Your task to perform on an android device: What's on my calendar today? Image 0: 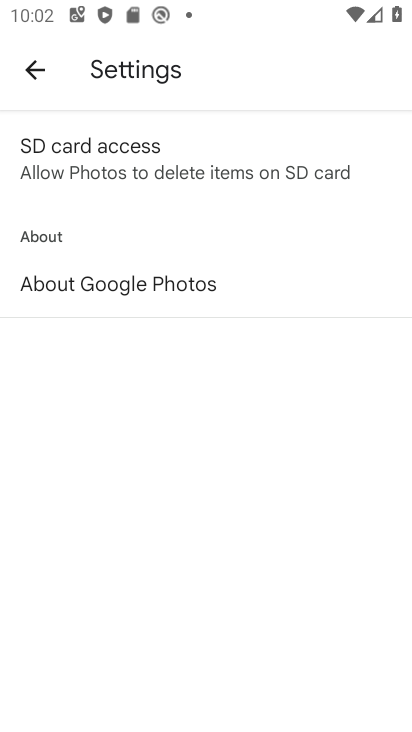
Step 0: press home button
Your task to perform on an android device: What's on my calendar today? Image 1: 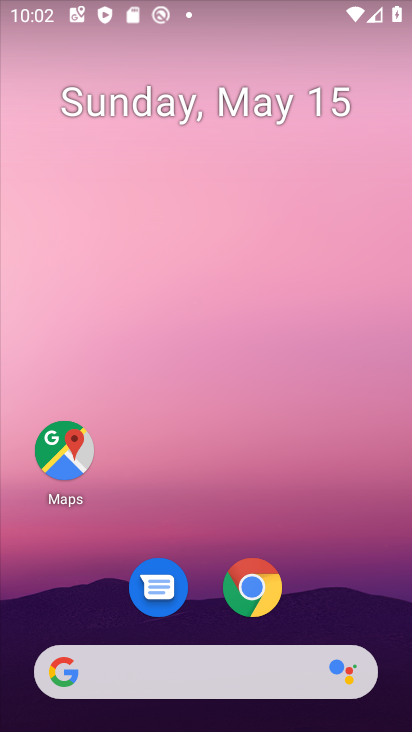
Step 1: drag from (394, 634) to (315, 187)
Your task to perform on an android device: What's on my calendar today? Image 2: 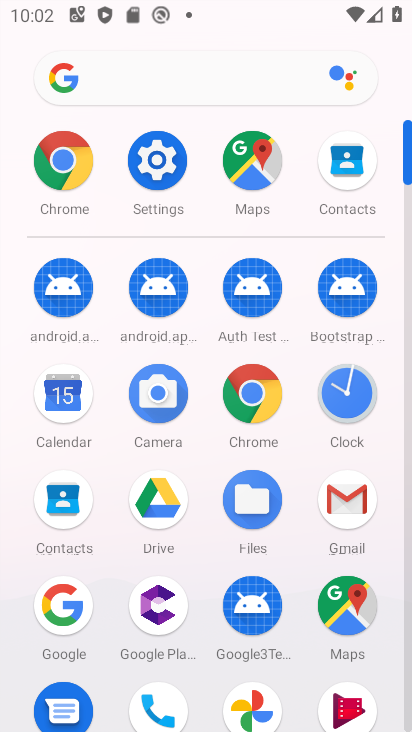
Step 2: click (62, 608)
Your task to perform on an android device: What's on my calendar today? Image 3: 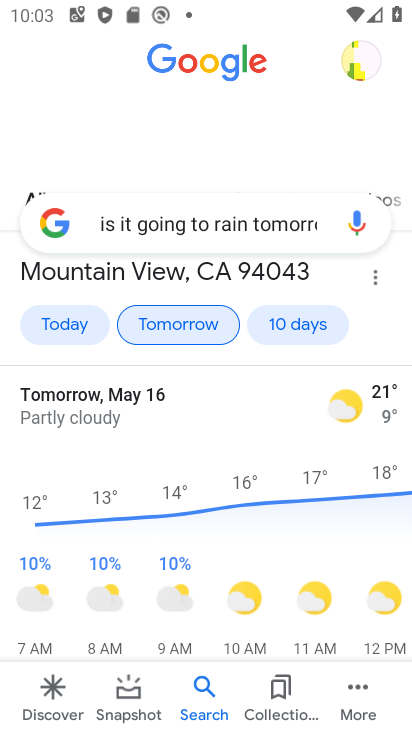
Step 3: press back button
Your task to perform on an android device: What's on my calendar today? Image 4: 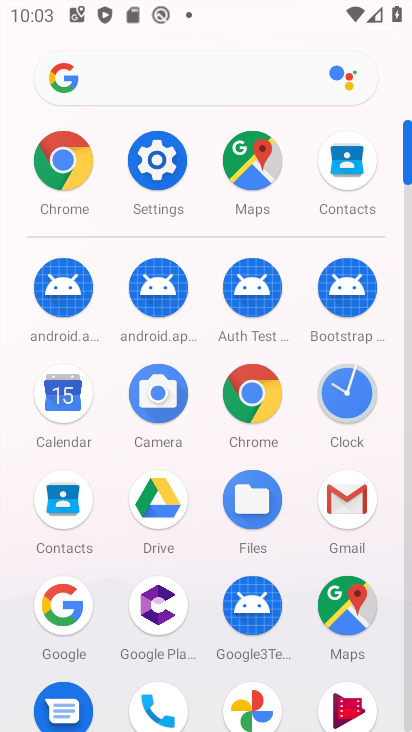
Step 4: press home button
Your task to perform on an android device: What's on my calendar today? Image 5: 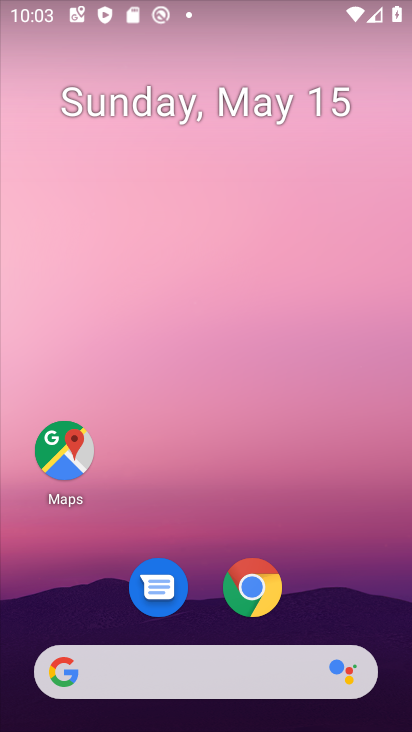
Step 5: drag from (350, 412) to (270, 101)
Your task to perform on an android device: What's on my calendar today? Image 6: 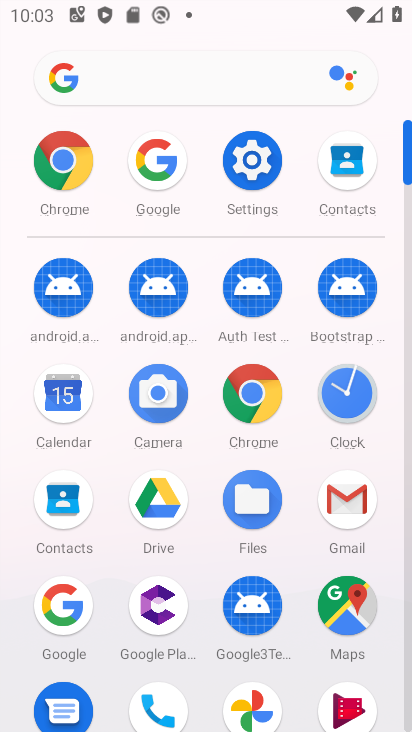
Step 6: click (64, 404)
Your task to perform on an android device: What's on my calendar today? Image 7: 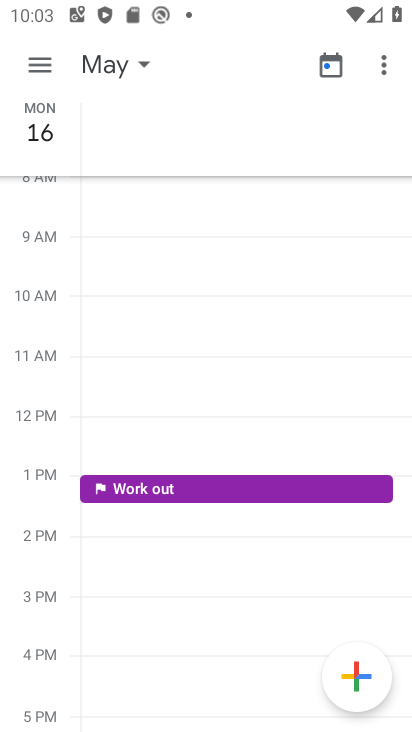
Step 7: click (117, 56)
Your task to perform on an android device: What's on my calendar today? Image 8: 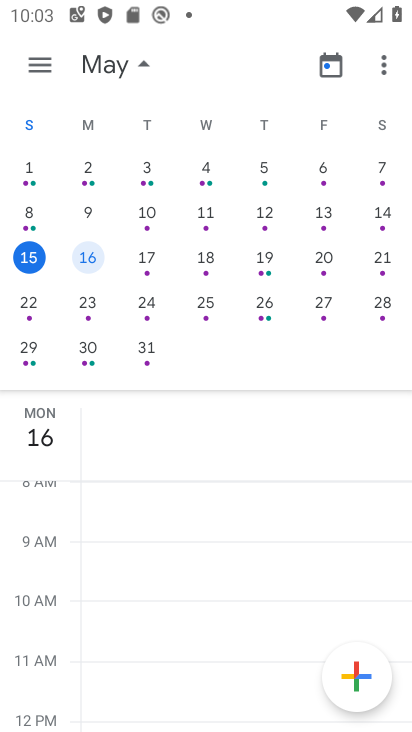
Step 8: click (92, 258)
Your task to perform on an android device: What's on my calendar today? Image 9: 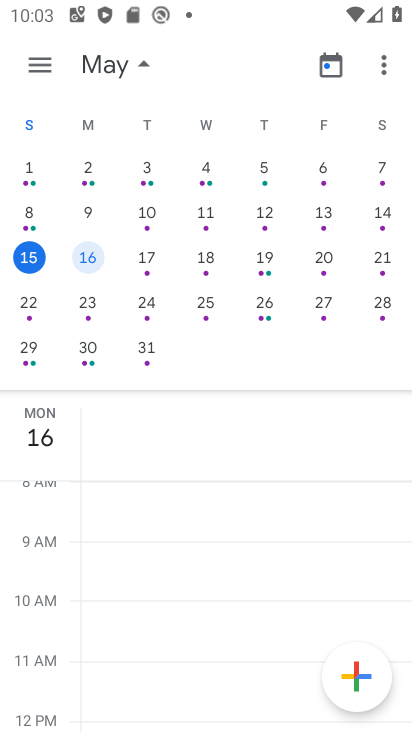
Step 9: click (92, 258)
Your task to perform on an android device: What's on my calendar today? Image 10: 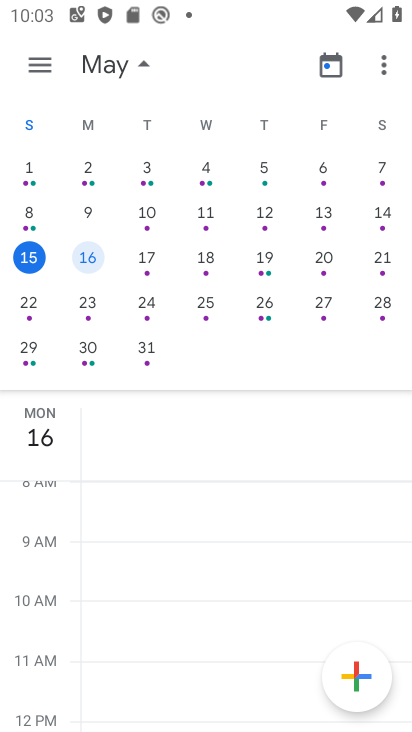
Step 10: click (92, 258)
Your task to perform on an android device: What's on my calendar today? Image 11: 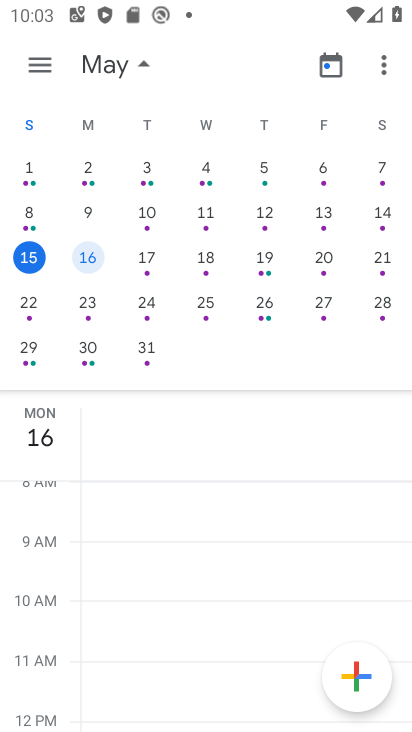
Step 11: click (92, 258)
Your task to perform on an android device: What's on my calendar today? Image 12: 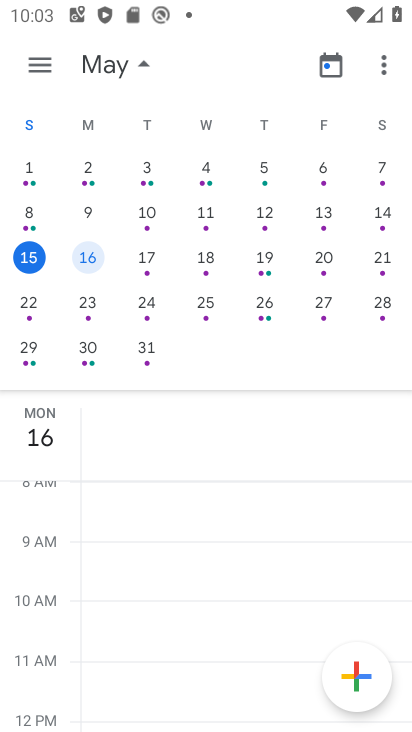
Step 12: task complete